Your task to perform on an android device: toggle javascript in the chrome app Image 0: 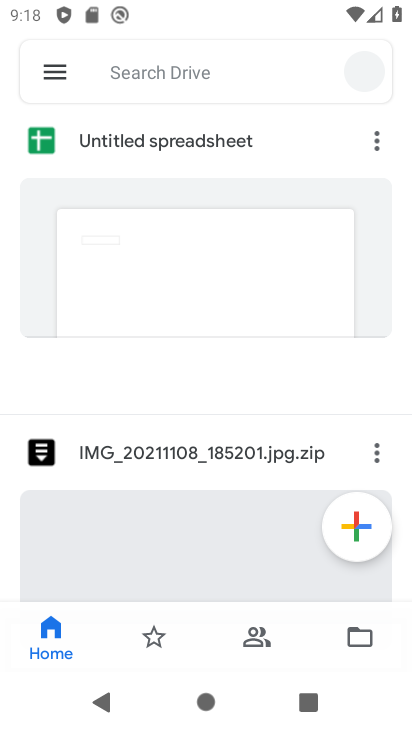
Step 0: press home button
Your task to perform on an android device: toggle javascript in the chrome app Image 1: 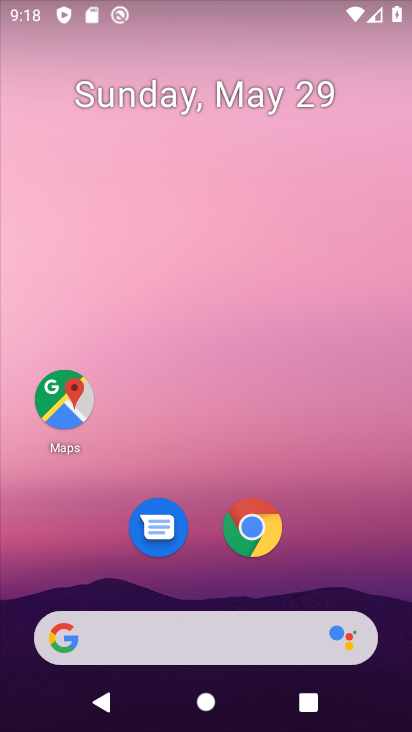
Step 1: click (257, 532)
Your task to perform on an android device: toggle javascript in the chrome app Image 2: 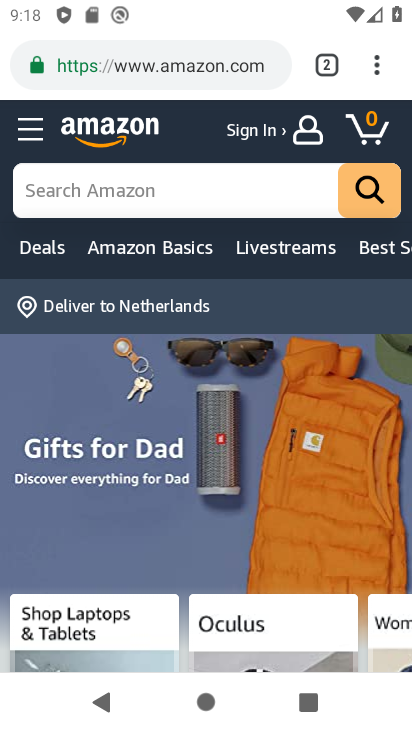
Step 2: drag from (380, 71) to (224, 577)
Your task to perform on an android device: toggle javascript in the chrome app Image 3: 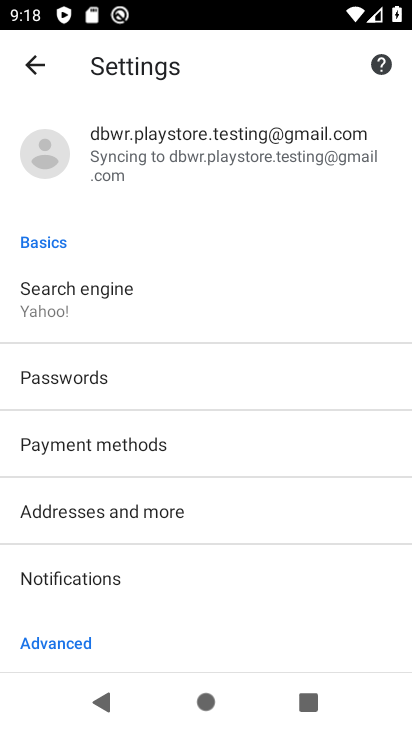
Step 3: drag from (194, 571) to (315, 182)
Your task to perform on an android device: toggle javascript in the chrome app Image 4: 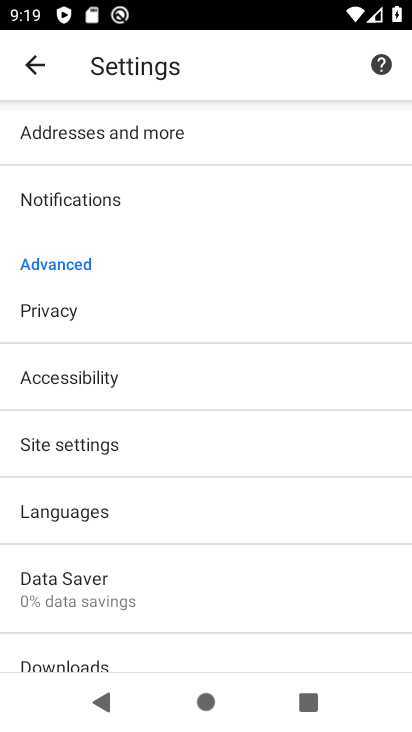
Step 4: click (80, 433)
Your task to perform on an android device: toggle javascript in the chrome app Image 5: 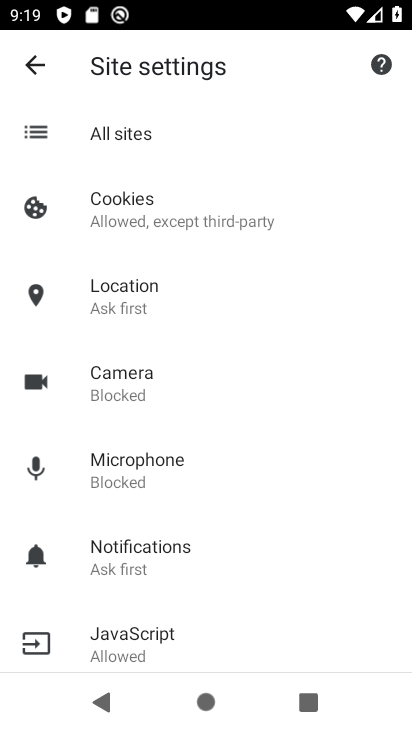
Step 5: drag from (261, 551) to (317, 298)
Your task to perform on an android device: toggle javascript in the chrome app Image 6: 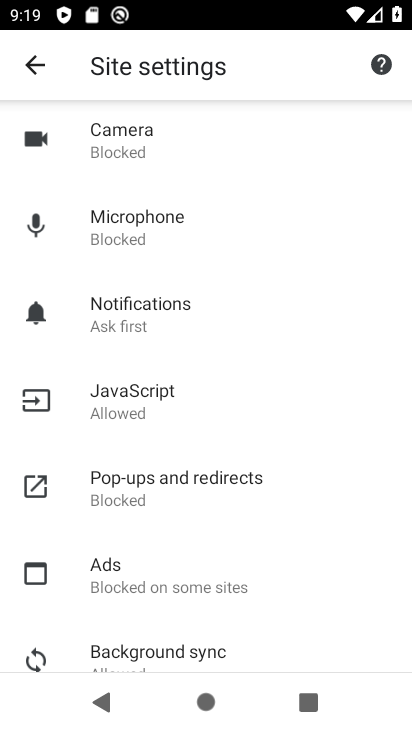
Step 6: click (130, 406)
Your task to perform on an android device: toggle javascript in the chrome app Image 7: 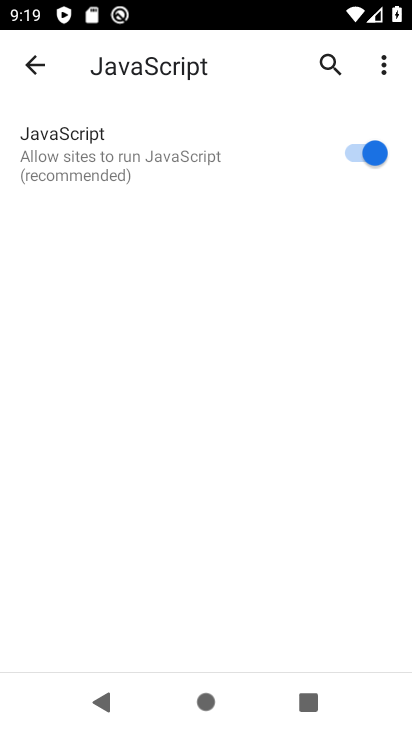
Step 7: click (354, 150)
Your task to perform on an android device: toggle javascript in the chrome app Image 8: 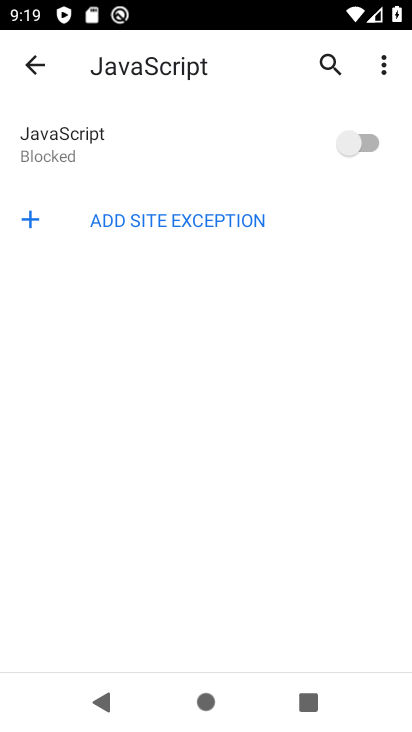
Step 8: task complete